Your task to perform on an android device: Play the last video I watched on Youtube Image 0: 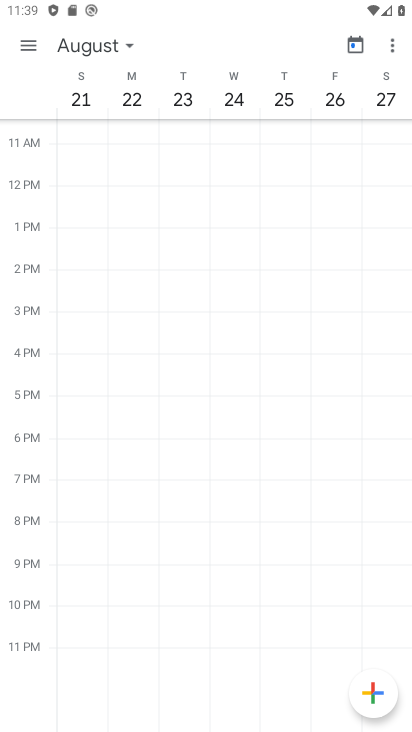
Step 0: press home button
Your task to perform on an android device: Play the last video I watched on Youtube Image 1: 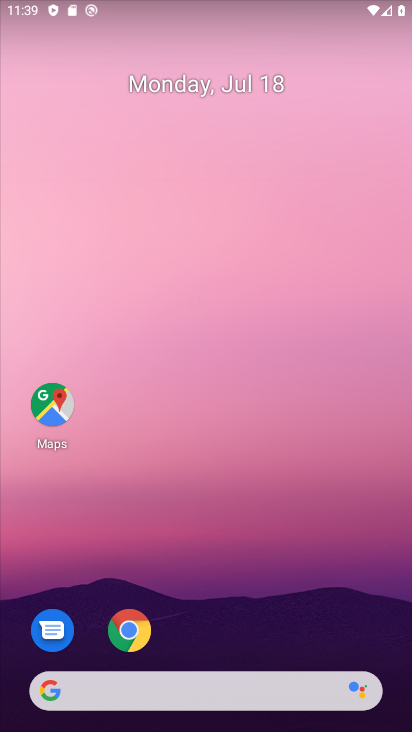
Step 1: drag from (208, 656) to (195, 0)
Your task to perform on an android device: Play the last video I watched on Youtube Image 2: 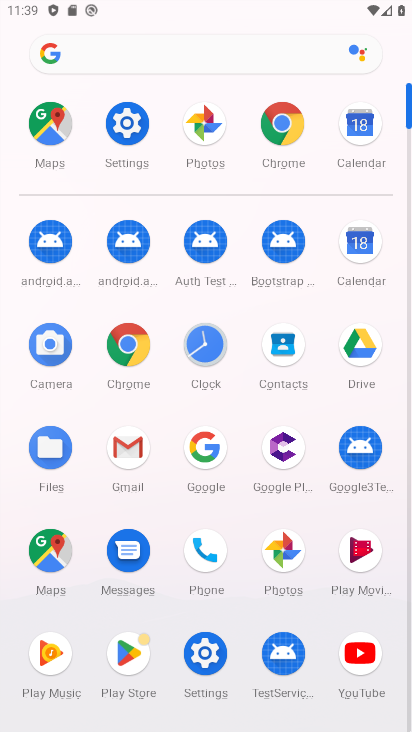
Step 2: click (374, 656)
Your task to perform on an android device: Play the last video I watched on Youtube Image 3: 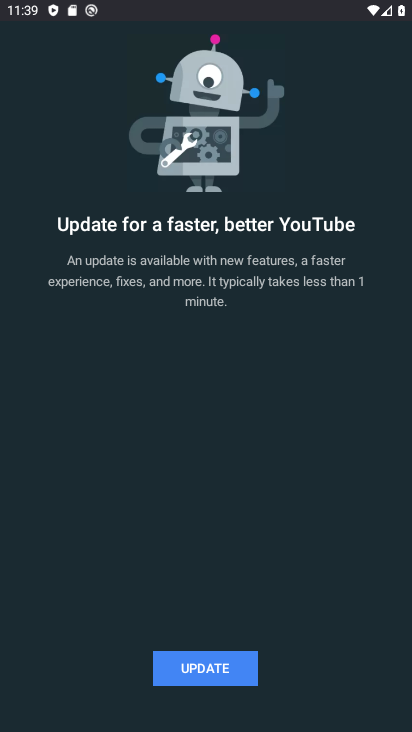
Step 3: click (206, 670)
Your task to perform on an android device: Play the last video I watched on Youtube Image 4: 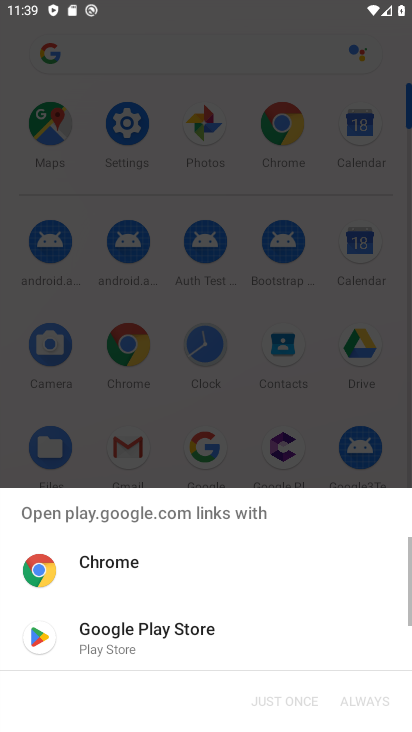
Step 4: click (154, 634)
Your task to perform on an android device: Play the last video I watched on Youtube Image 5: 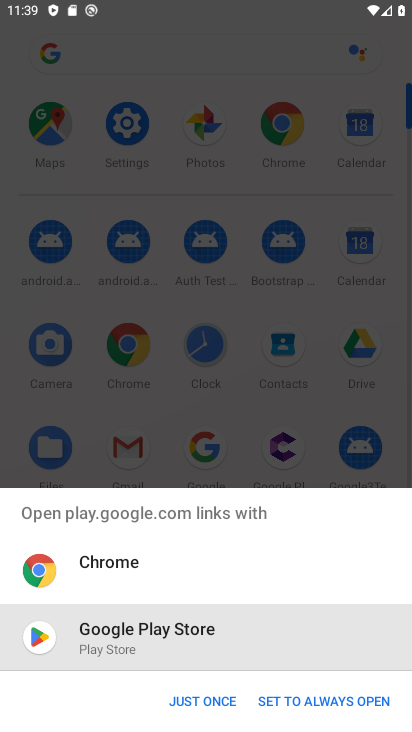
Step 5: click (189, 704)
Your task to perform on an android device: Play the last video I watched on Youtube Image 6: 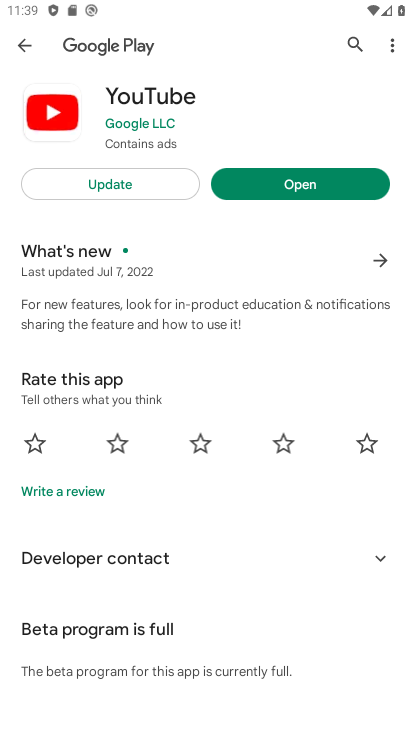
Step 6: click (115, 190)
Your task to perform on an android device: Play the last video I watched on Youtube Image 7: 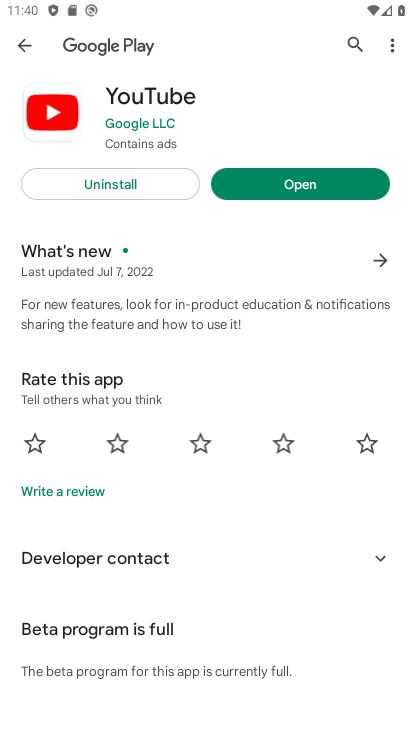
Step 7: click (275, 191)
Your task to perform on an android device: Play the last video I watched on Youtube Image 8: 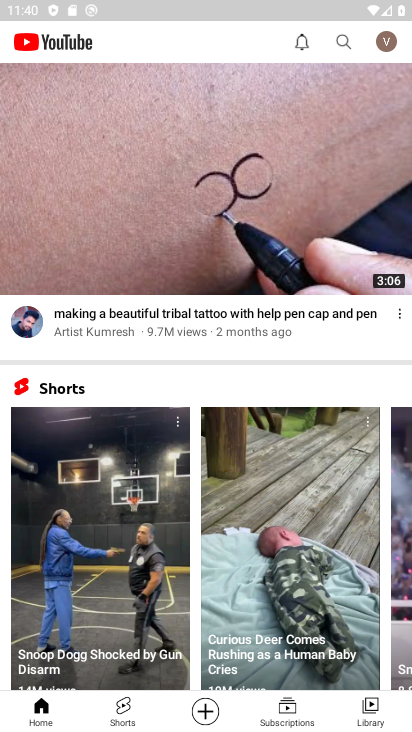
Step 8: click (378, 716)
Your task to perform on an android device: Play the last video I watched on Youtube Image 9: 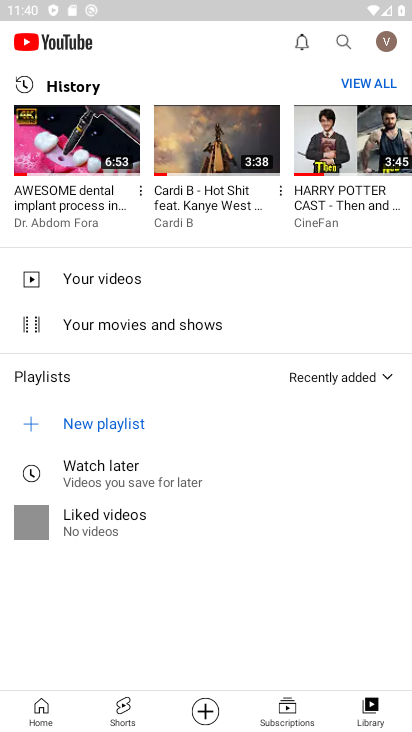
Step 9: click (87, 174)
Your task to perform on an android device: Play the last video I watched on Youtube Image 10: 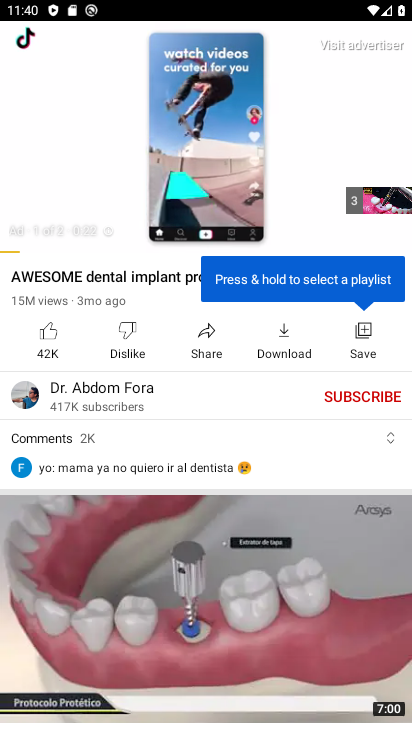
Step 10: task complete